Your task to perform on an android device: change the clock display to digital Image 0: 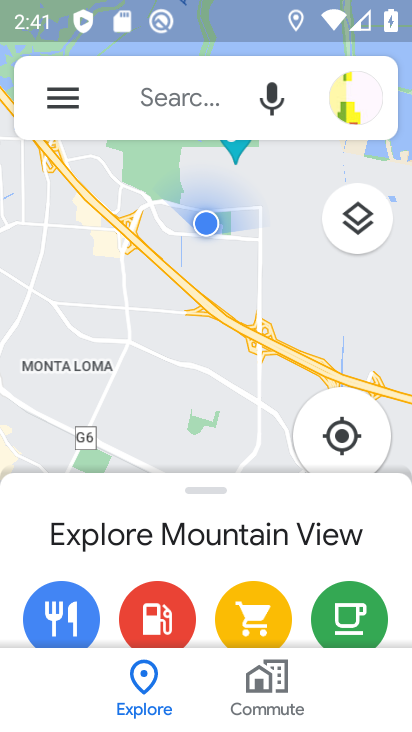
Step 0: press home button
Your task to perform on an android device: change the clock display to digital Image 1: 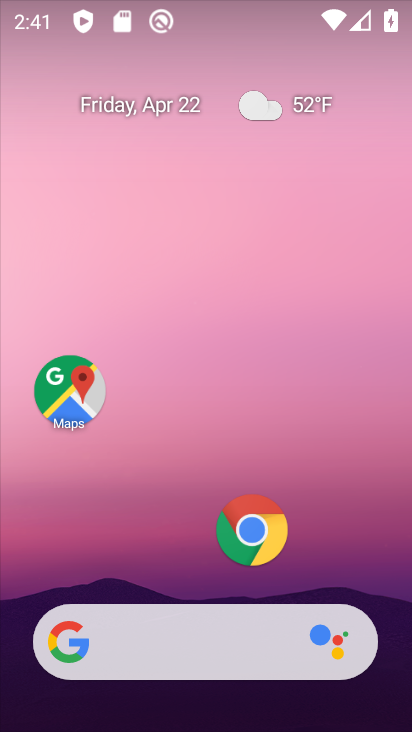
Step 1: drag from (159, 626) to (157, 110)
Your task to perform on an android device: change the clock display to digital Image 2: 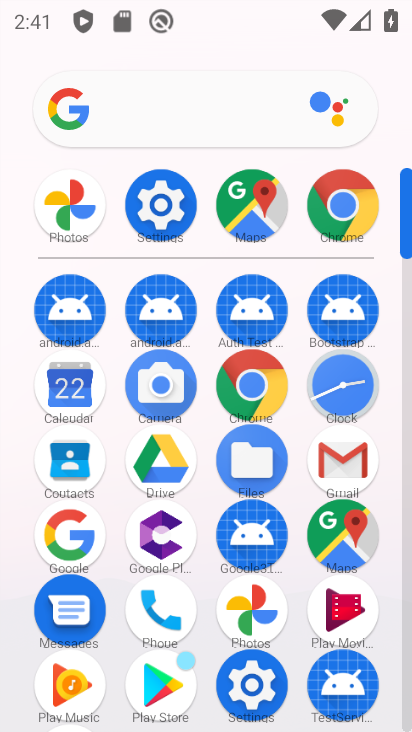
Step 2: click (341, 366)
Your task to perform on an android device: change the clock display to digital Image 3: 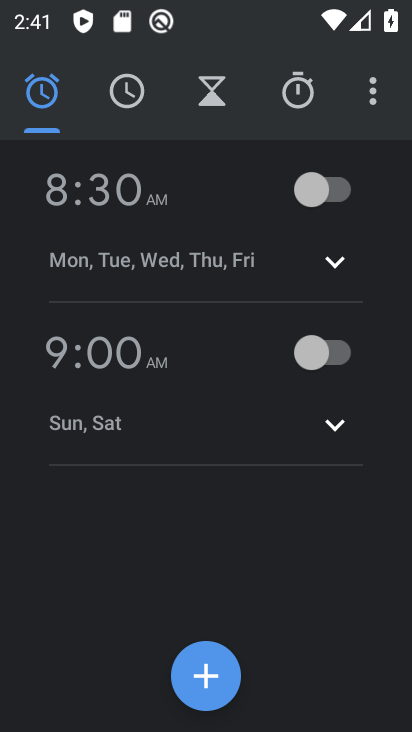
Step 3: click (369, 100)
Your task to perform on an android device: change the clock display to digital Image 4: 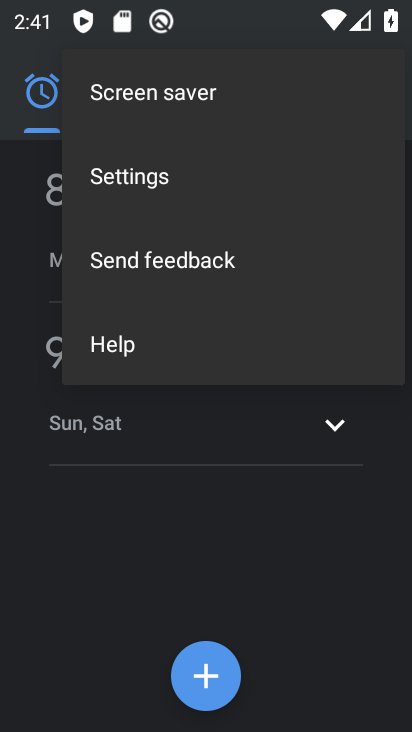
Step 4: click (150, 170)
Your task to perform on an android device: change the clock display to digital Image 5: 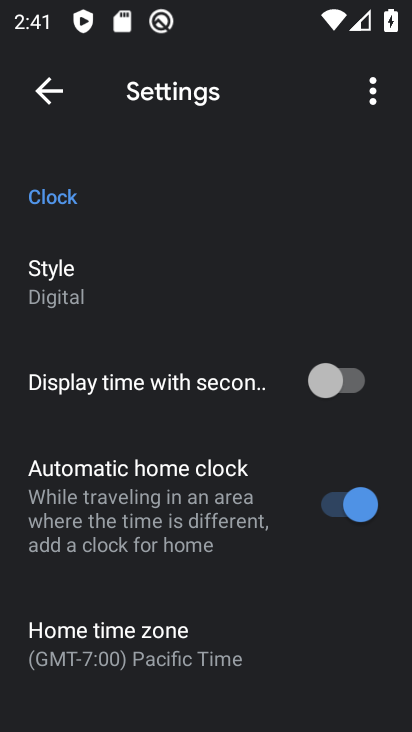
Step 5: click (117, 274)
Your task to perform on an android device: change the clock display to digital Image 6: 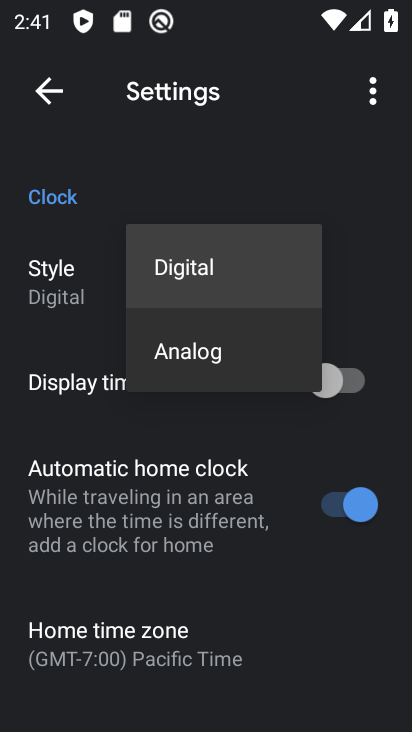
Step 6: click (172, 295)
Your task to perform on an android device: change the clock display to digital Image 7: 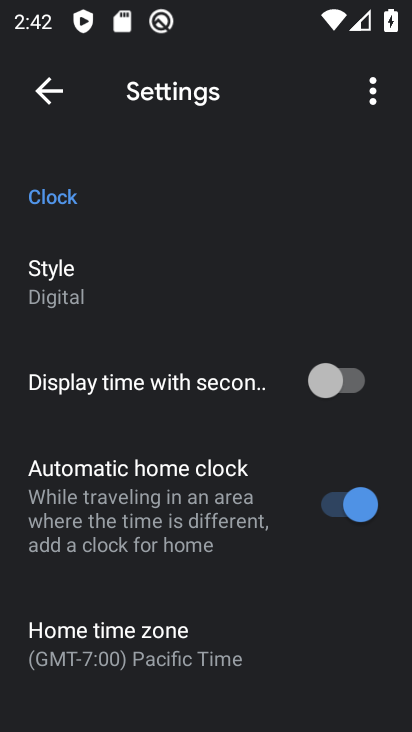
Step 7: task complete